Your task to perform on an android device: Go to Android settings Image 0: 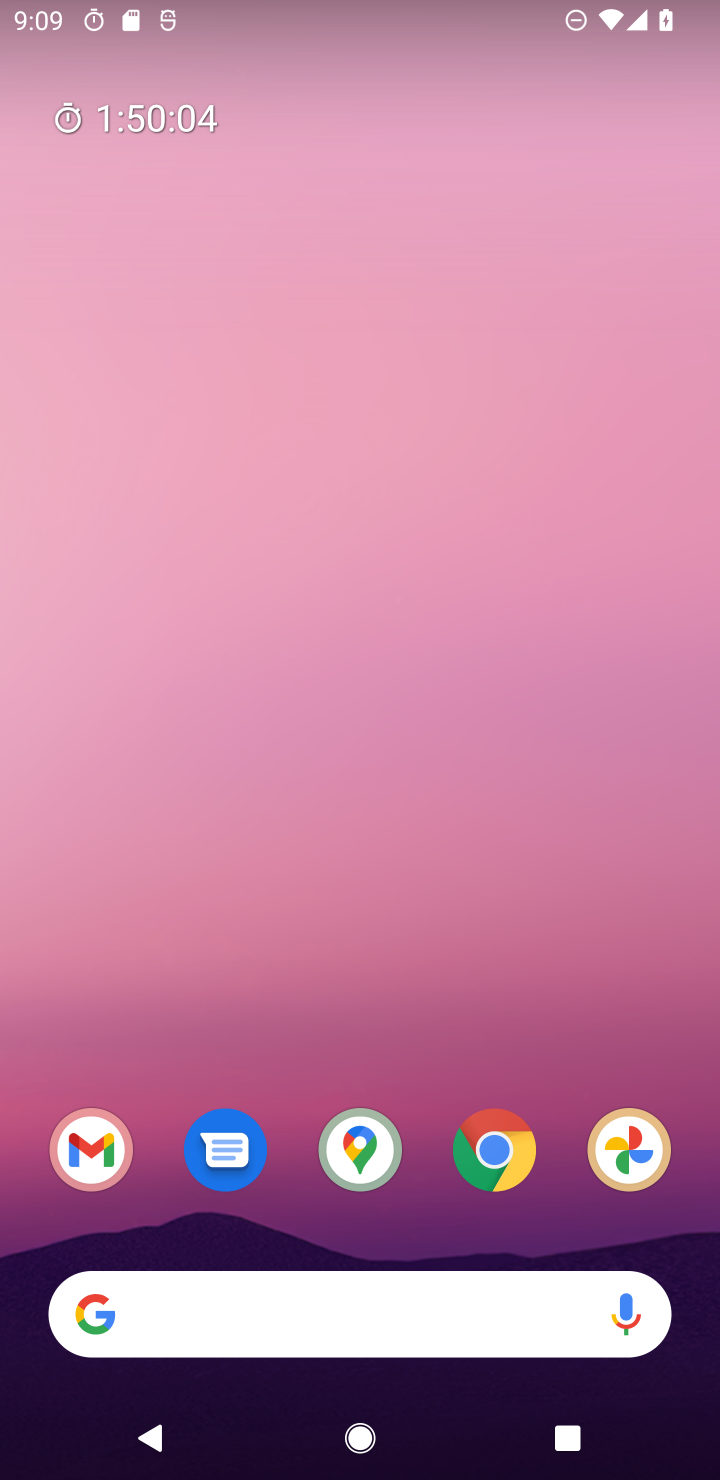
Step 0: drag from (493, 798) to (640, 3)
Your task to perform on an android device: Go to Android settings Image 1: 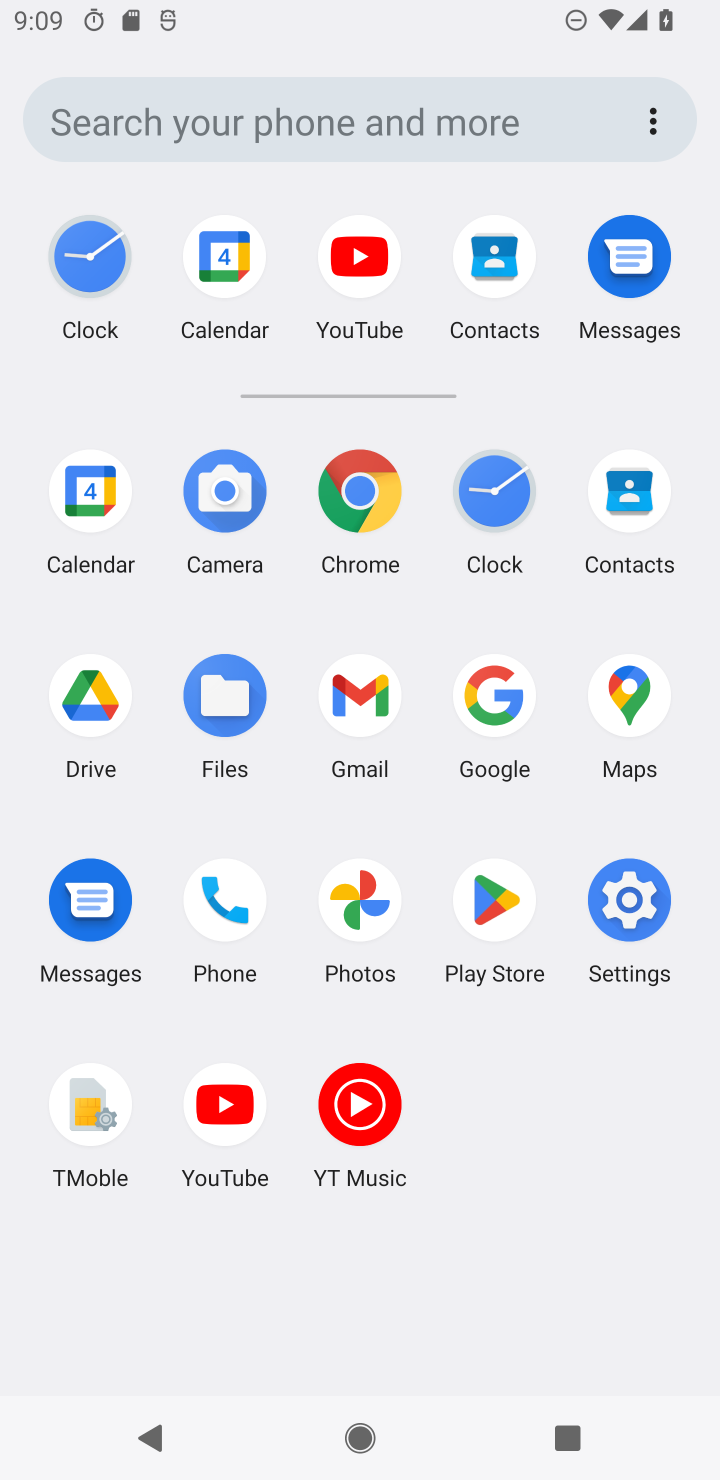
Step 1: click (631, 910)
Your task to perform on an android device: Go to Android settings Image 2: 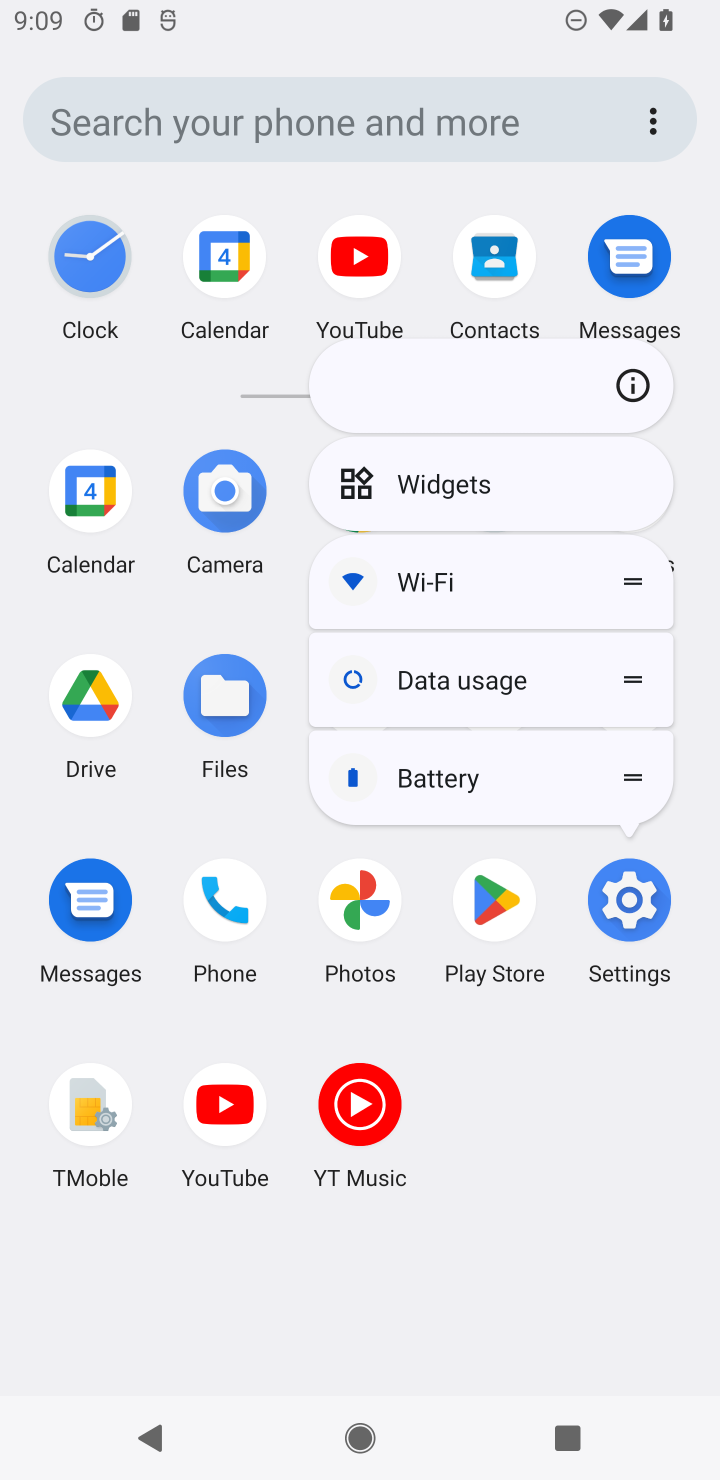
Step 2: click (579, 891)
Your task to perform on an android device: Go to Android settings Image 3: 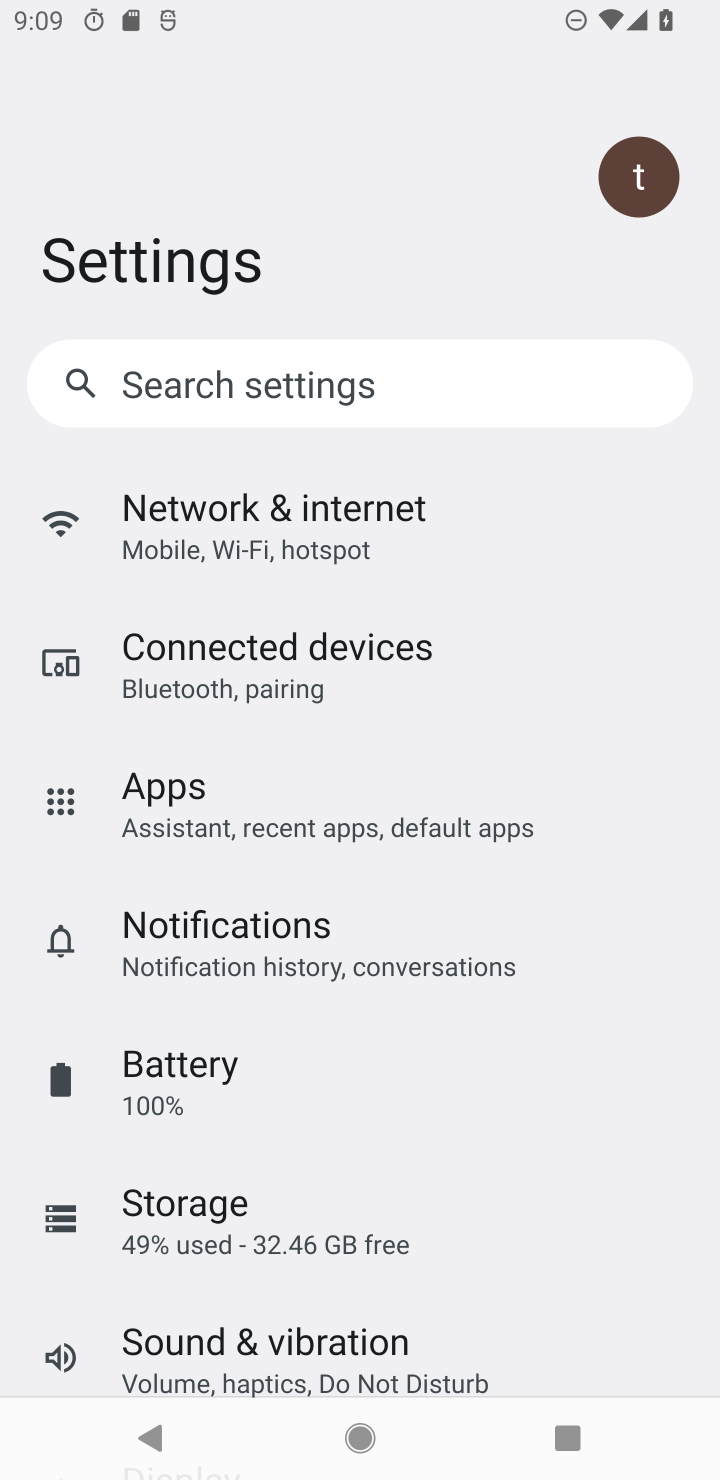
Step 3: drag from (355, 1171) to (688, 15)
Your task to perform on an android device: Go to Android settings Image 4: 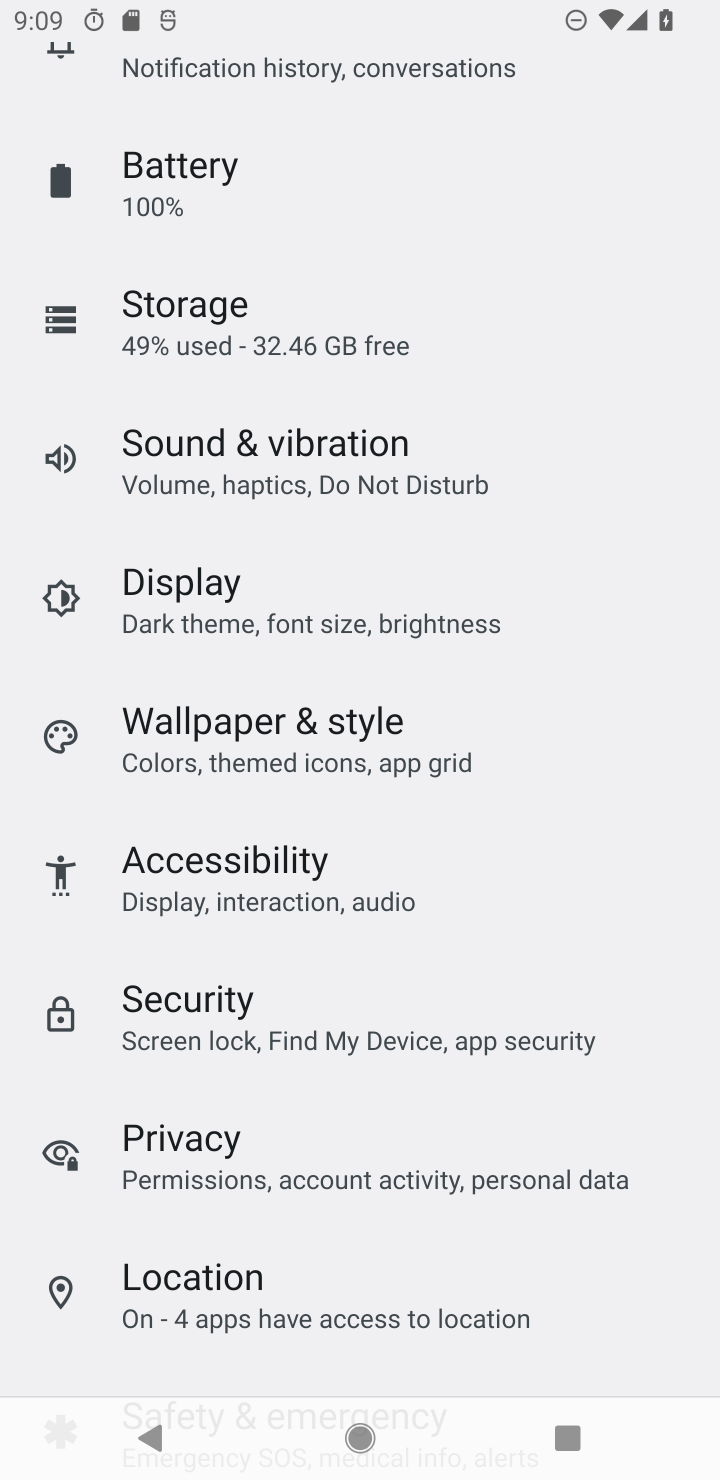
Step 4: drag from (453, 1234) to (596, 80)
Your task to perform on an android device: Go to Android settings Image 5: 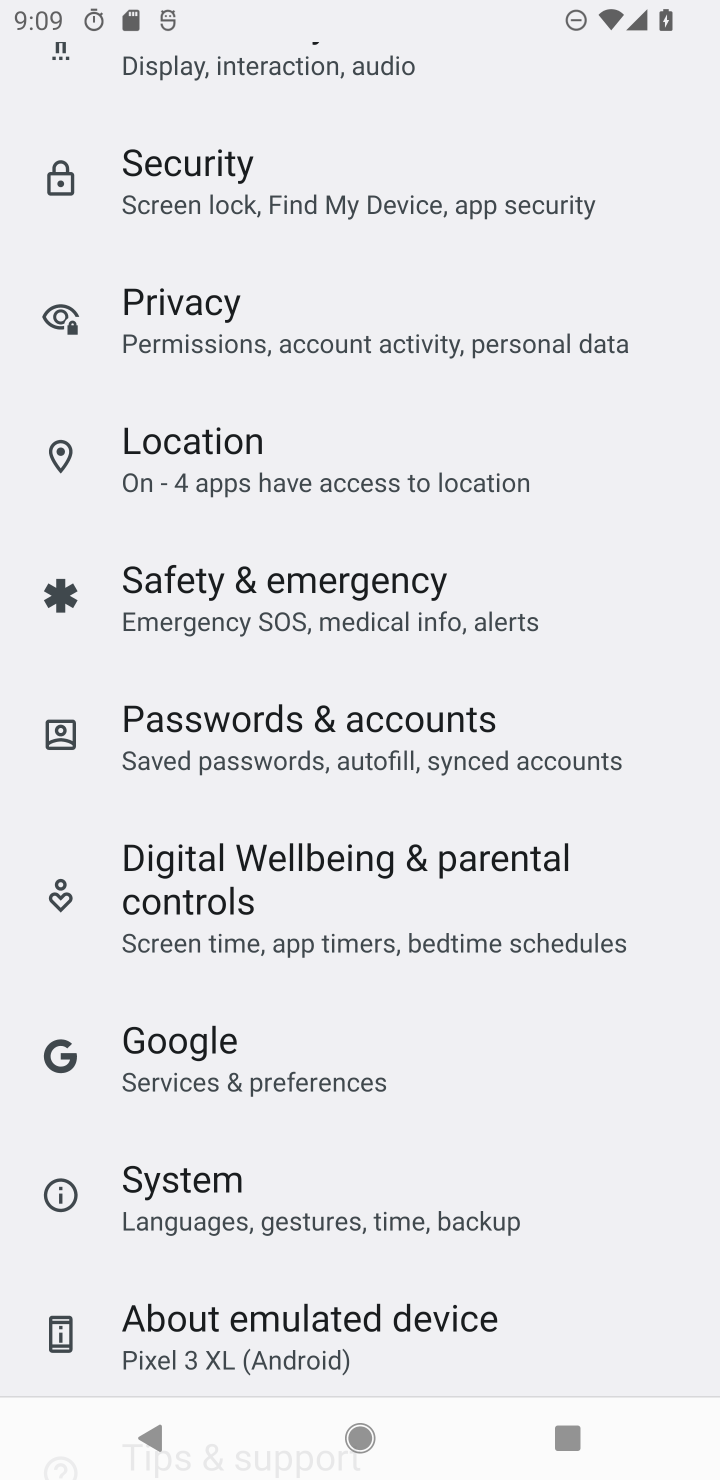
Step 5: drag from (392, 1174) to (452, 340)
Your task to perform on an android device: Go to Android settings Image 6: 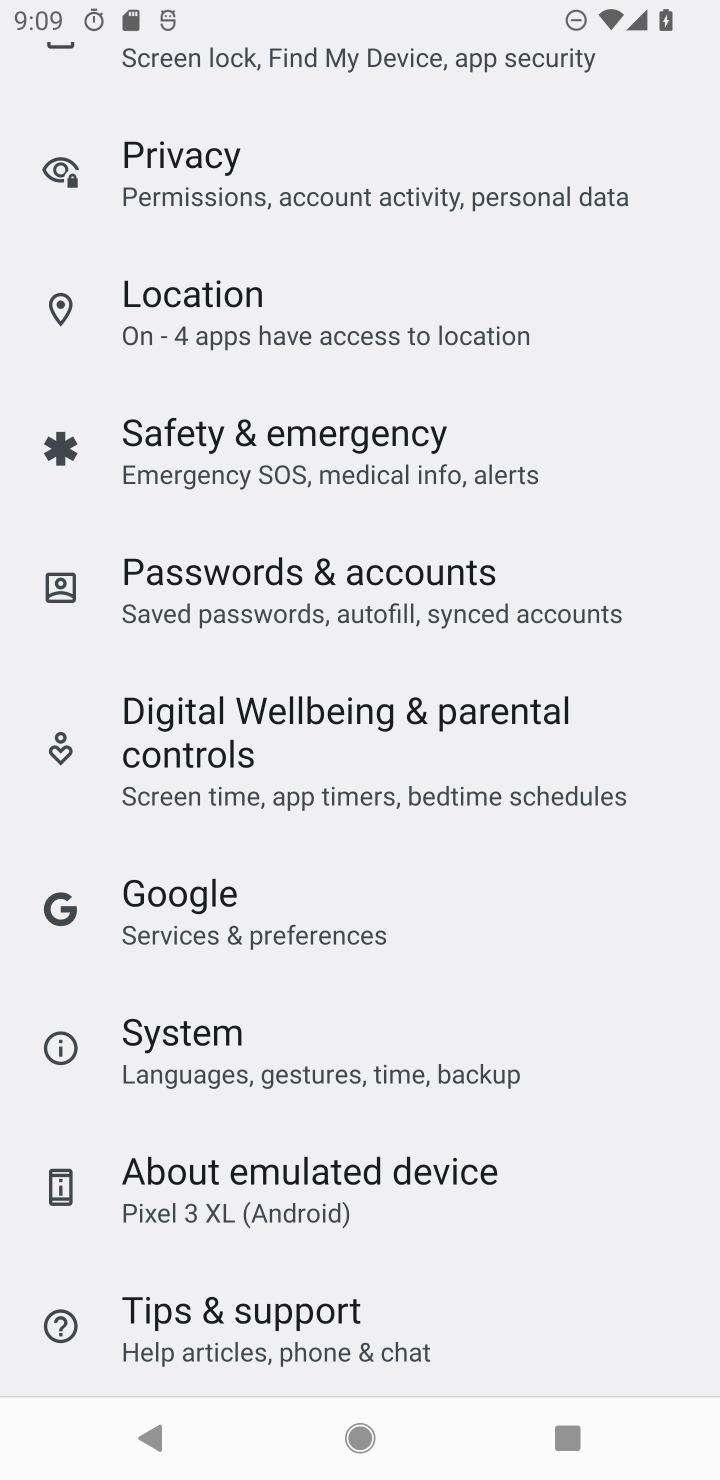
Step 6: click (377, 1194)
Your task to perform on an android device: Go to Android settings Image 7: 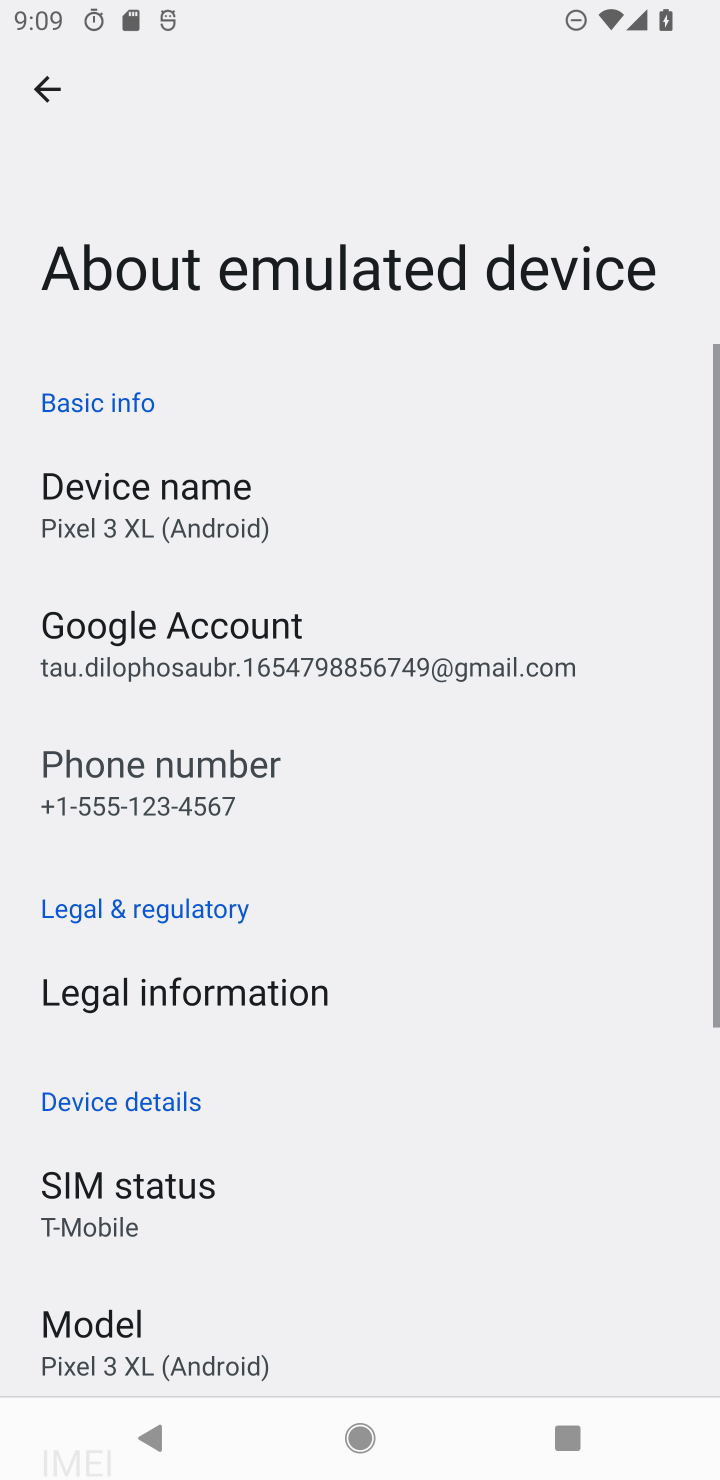
Step 7: drag from (318, 1317) to (476, 220)
Your task to perform on an android device: Go to Android settings Image 8: 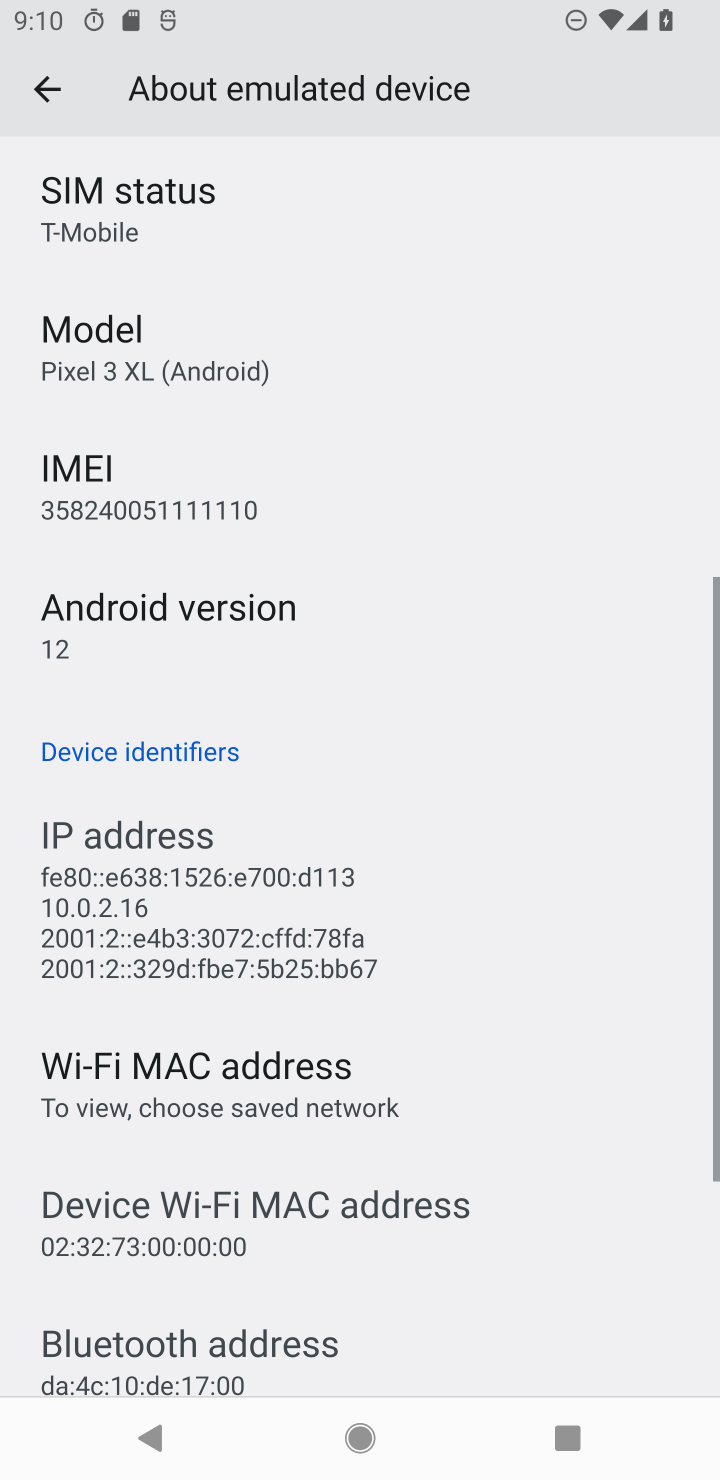
Step 8: click (279, 631)
Your task to perform on an android device: Go to Android settings Image 9: 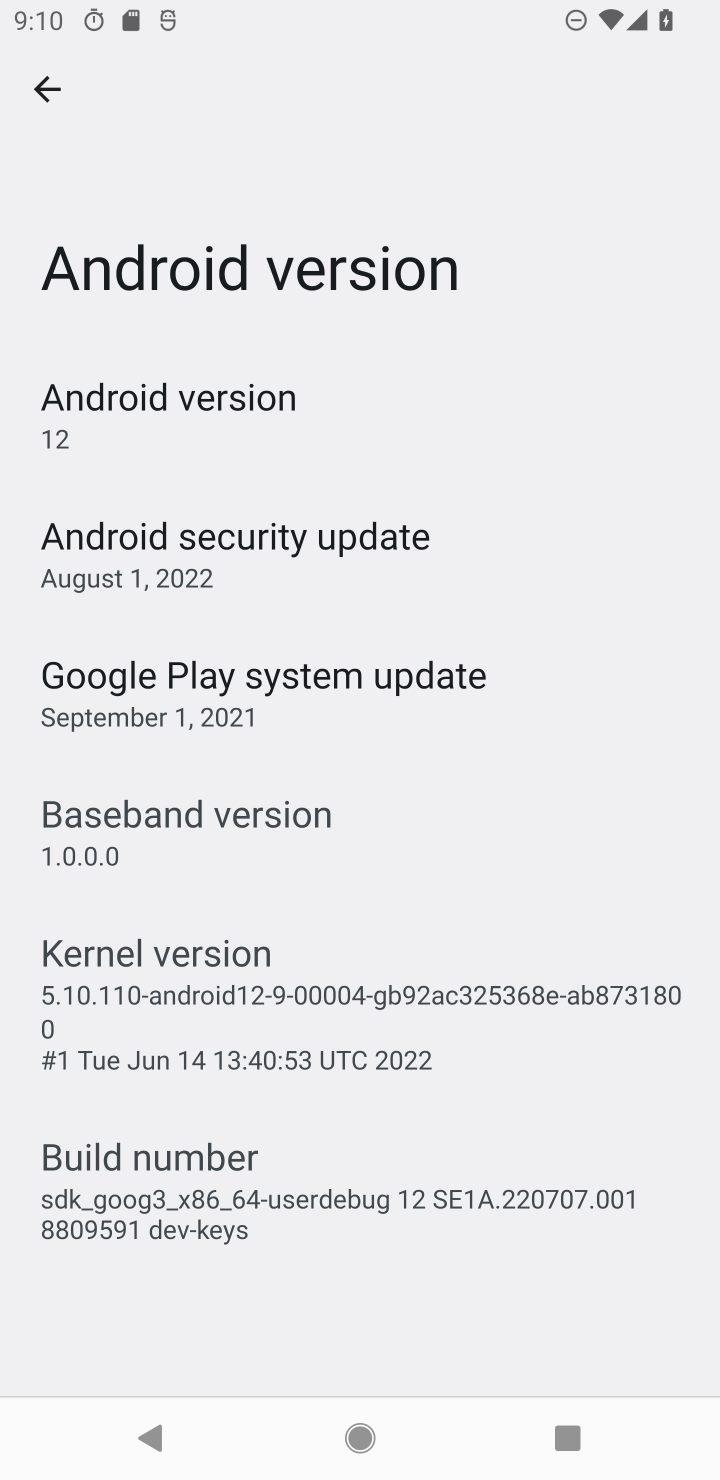
Step 9: task complete